Your task to perform on an android device: Is it going to rain tomorrow? Image 0: 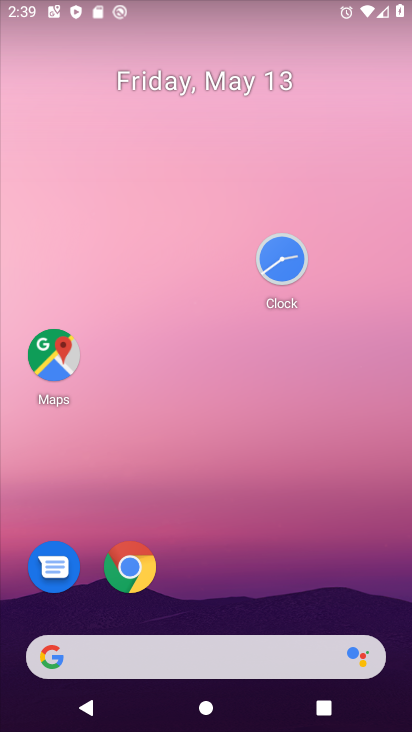
Step 0: click (208, 648)
Your task to perform on an android device: Is it going to rain tomorrow? Image 1: 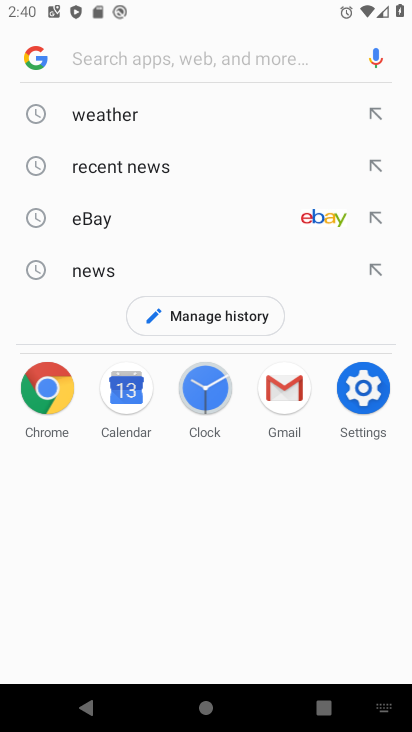
Step 1: click (193, 126)
Your task to perform on an android device: Is it going to rain tomorrow? Image 2: 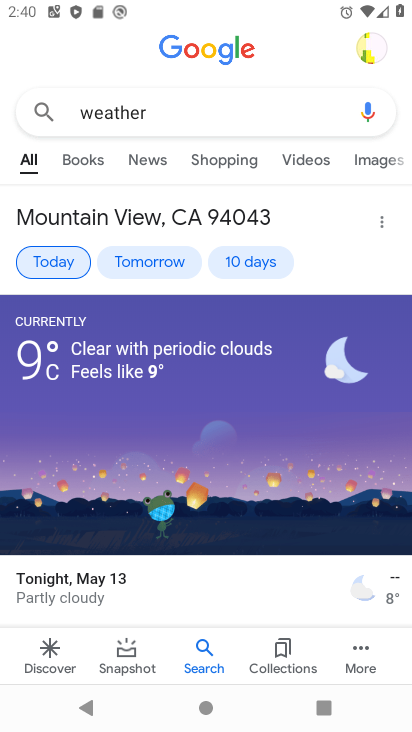
Step 2: click (125, 270)
Your task to perform on an android device: Is it going to rain tomorrow? Image 3: 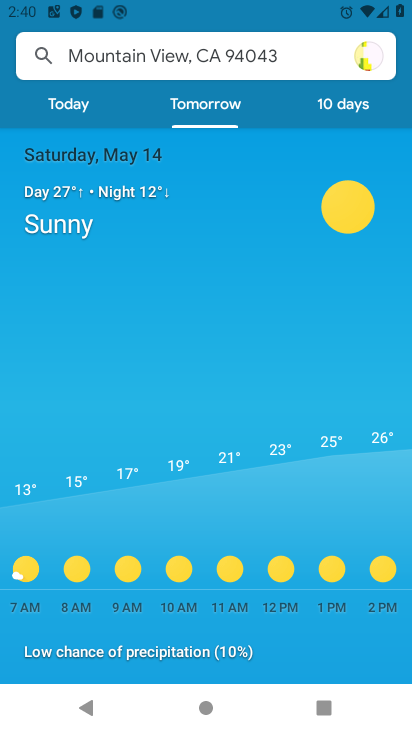
Step 3: task complete